Your task to perform on an android device: check data usage Image 0: 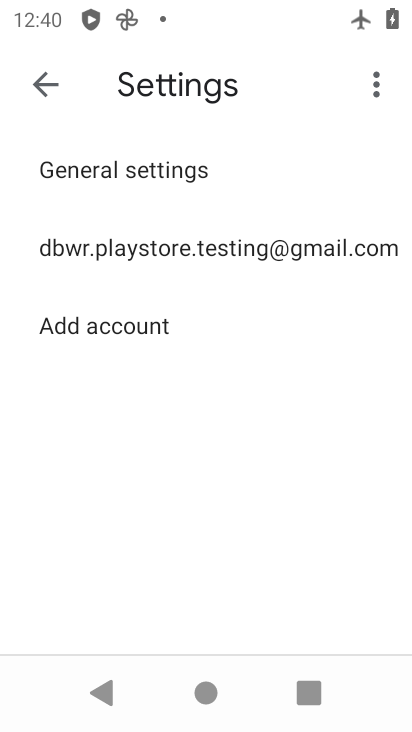
Step 0: press home button
Your task to perform on an android device: check data usage Image 1: 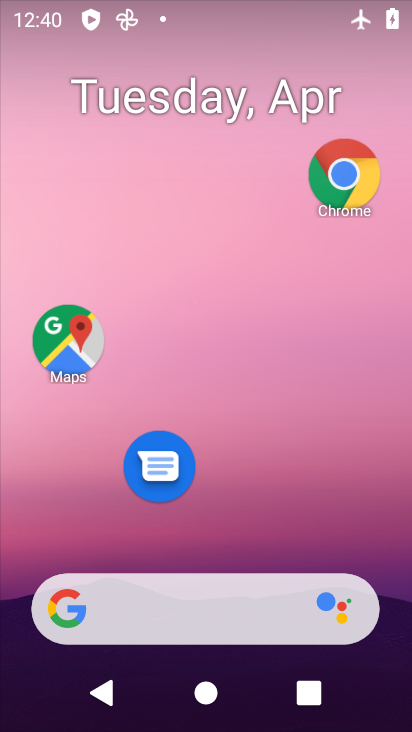
Step 1: drag from (293, 637) to (216, 152)
Your task to perform on an android device: check data usage Image 2: 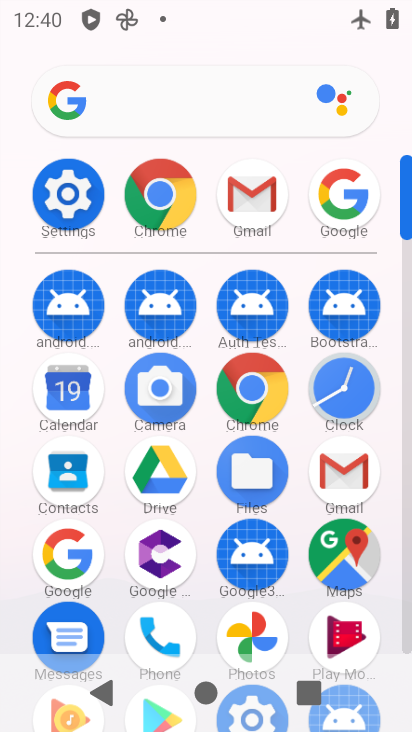
Step 2: click (68, 206)
Your task to perform on an android device: check data usage Image 3: 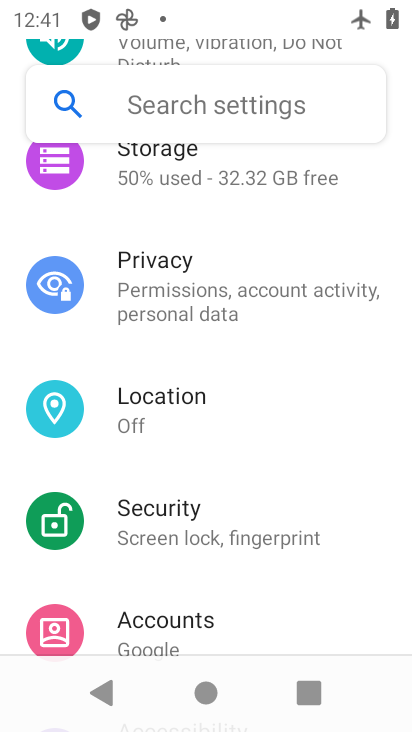
Step 3: drag from (172, 290) to (180, 582)
Your task to perform on an android device: check data usage Image 4: 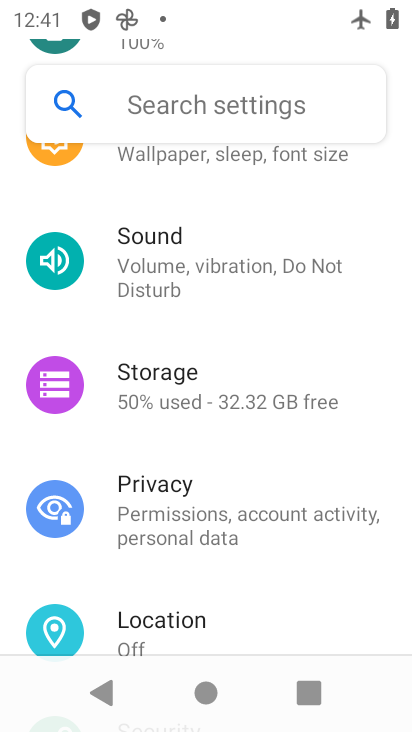
Step 4: drag from (189, 267) to (192, 663)
Your task to perform on an android device: check data usage Image 5: 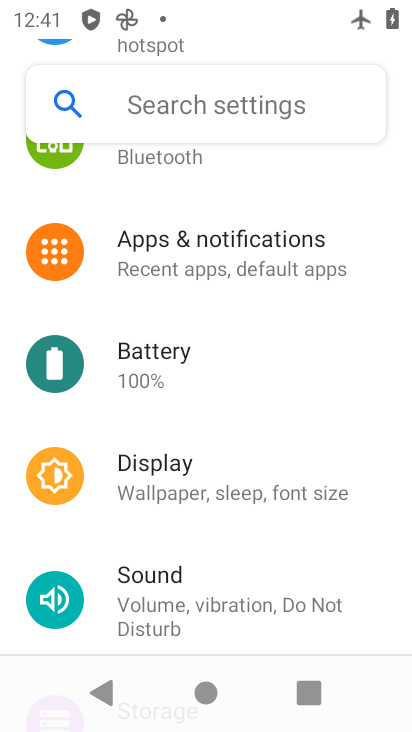
Step 5: drag from (193, 230) to (207, 696)
Your task to perform on an android device: check data usage Image 6: 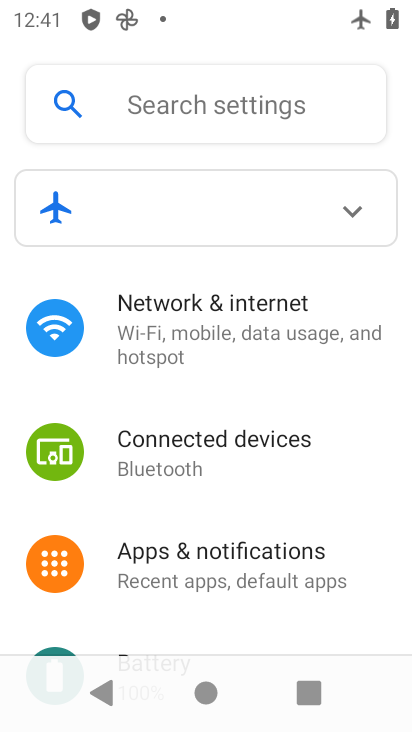
Step 6: drag from (189, 563) to (168, 396)
Your task to perform on an android device: check data usage Image 7: 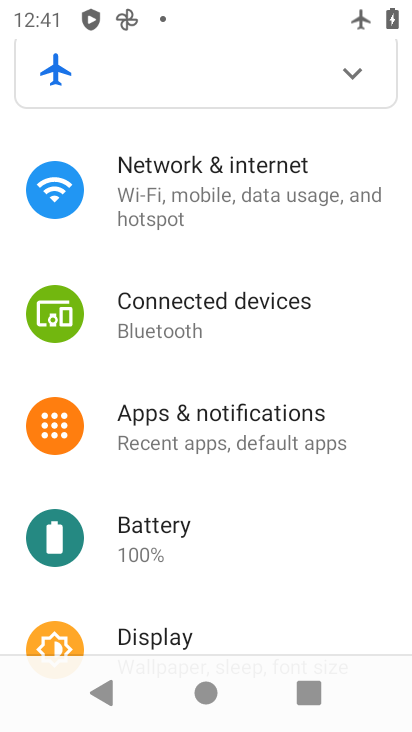
Step 7: click (227, 213)
Your task to perform on an android device: check data usage Image 8: 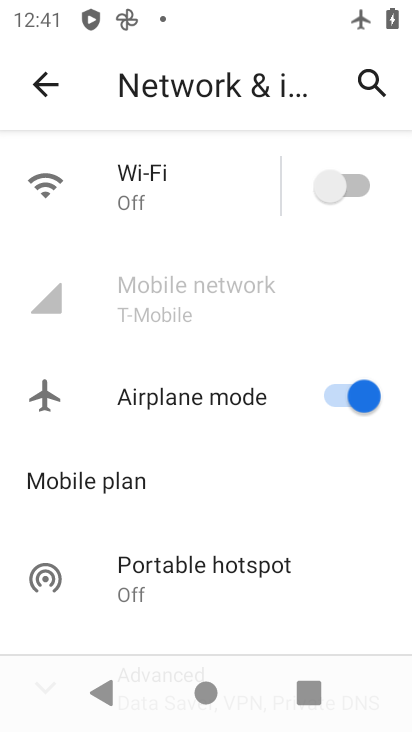
Step 8: task complete